Your task to perform on an android device: create a new album in the google photos Image 0: 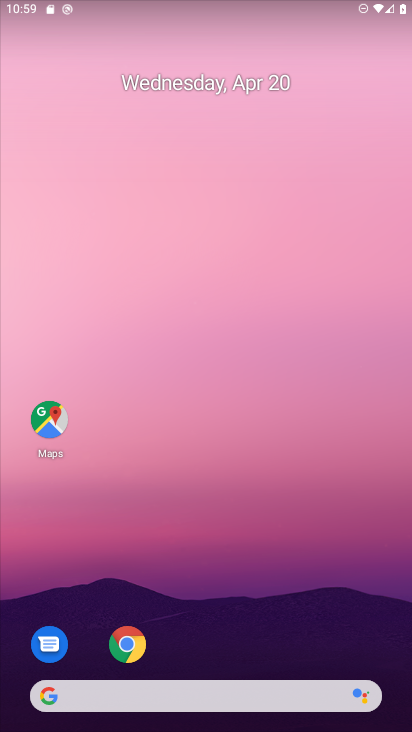
Step 0: drag from (327, 539) to (249, 48)
Your task to perform on an android device: create a new album in the google photos Image 1: 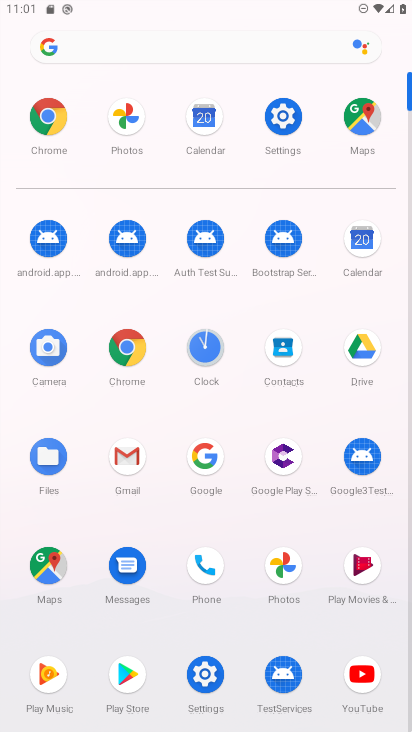
Step 1: click (285, 565)
Your task to perform on an android device: create a new album in the google photos Image 2: 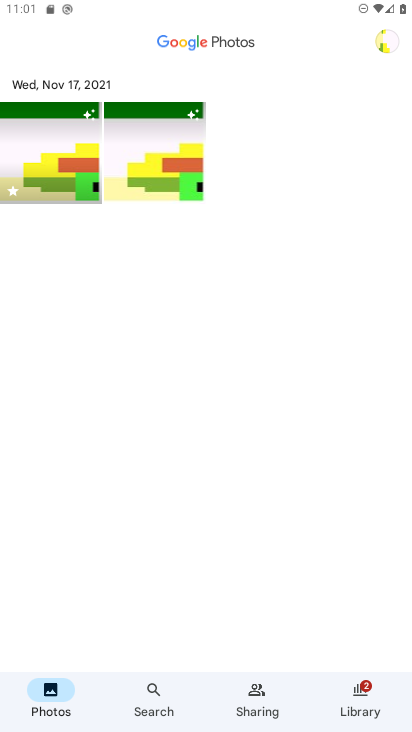
Step 2: click (39, 153)
Your task to perform on an android device: create a new album in the google photos Image 3: 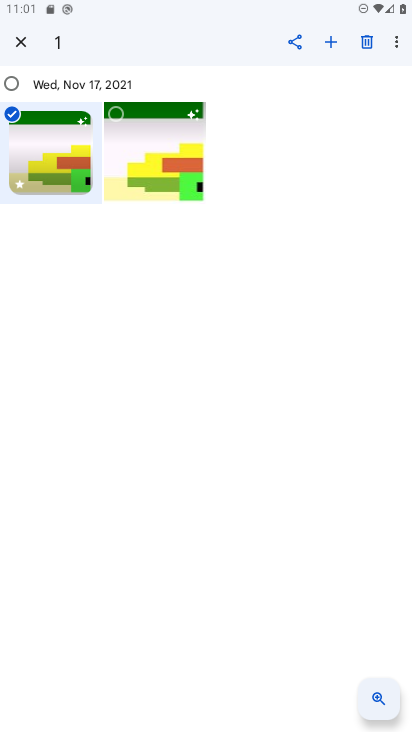
Step 3: click (327, 39)
Your task to perform on an android device: create a new album in the google photos Image 4: 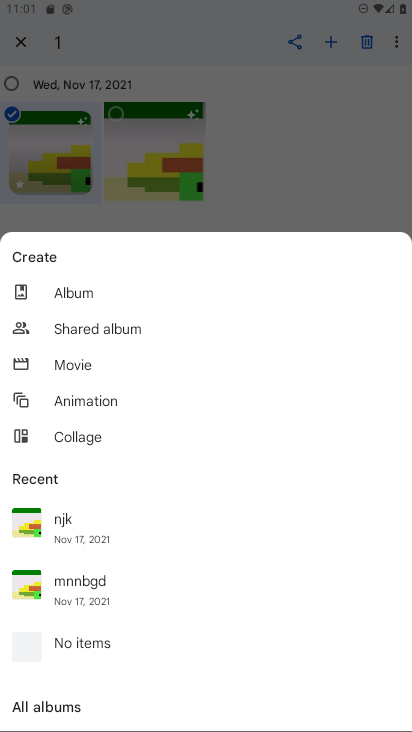
Step 4: click (64, 285)
Your task to perform on an android device: create a new album in the google photos Image 5: 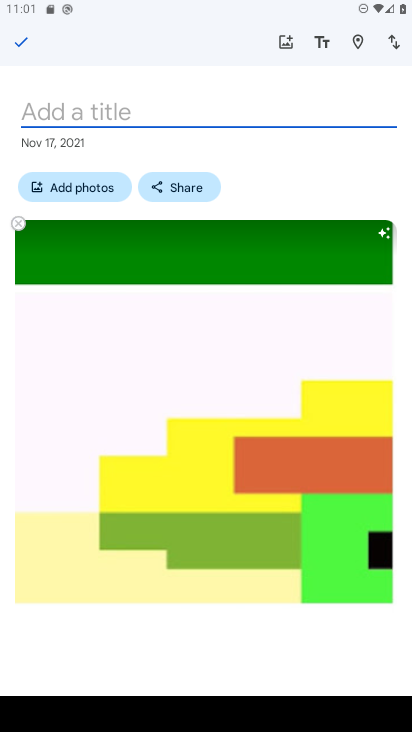
Step 5: type "MO"
Your task to perform on an android device: create a new album in the google photos Image 6: 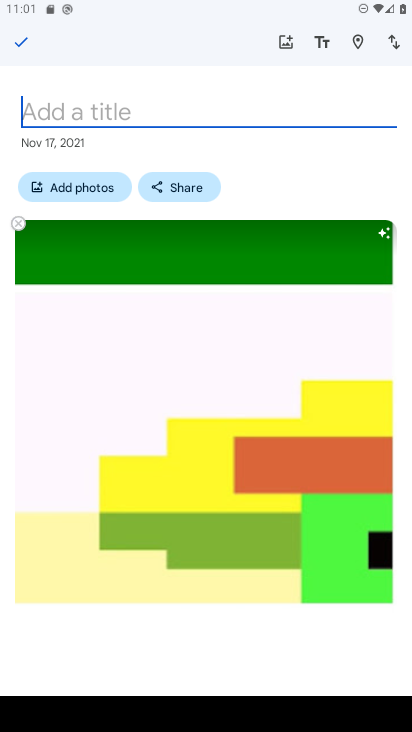
Step 6: click (18, 42)
Your task to perform on an android device: create a new album in the google photos Image 7: 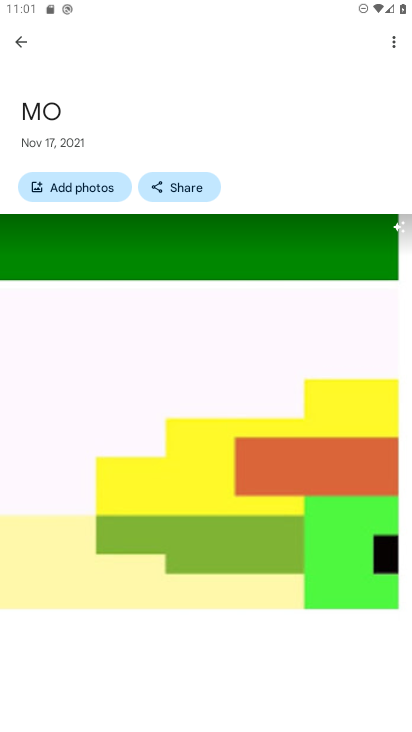
Step 7: task complete